Your task to perform on an android device: search for starred emails in the gmail app Image 0: 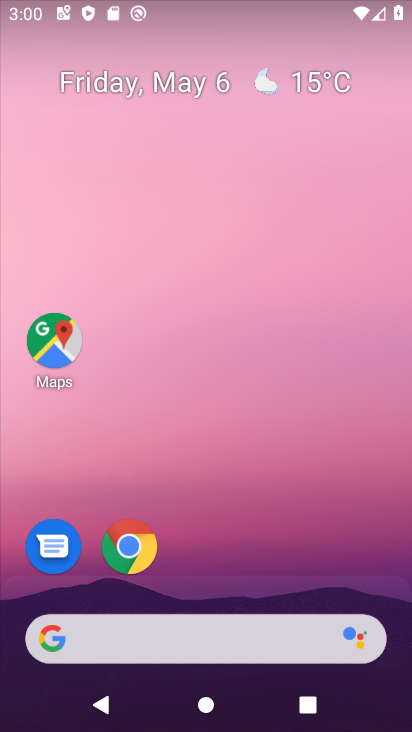
Step 0: drag from (183, 627) to (234, 190)
Your task to perform on an android device: search for starred emails in the gmail app Image 1: 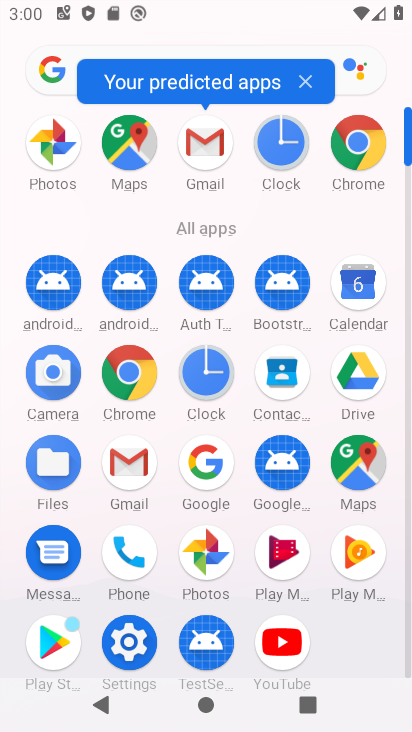
Step 1: click (210, 147)
Your task to perform on an android device: search for starred emails in the gmail app Image 2: 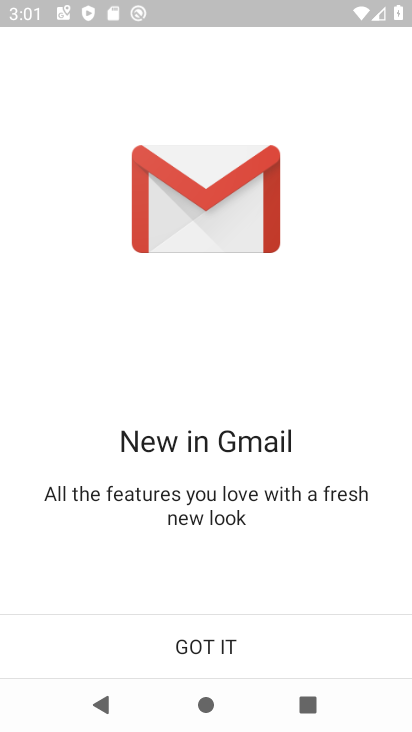
Step 2: click (205, 646)
Your task to perform on an android device: search for starred emails in the gmail app Image 3: 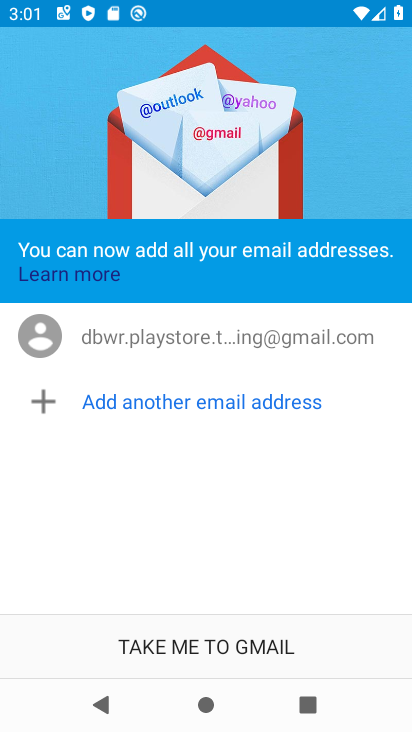
Step 3: click (206, 646)
Your task to perform on an android device: search for starred emails in the gmail app Image 4: 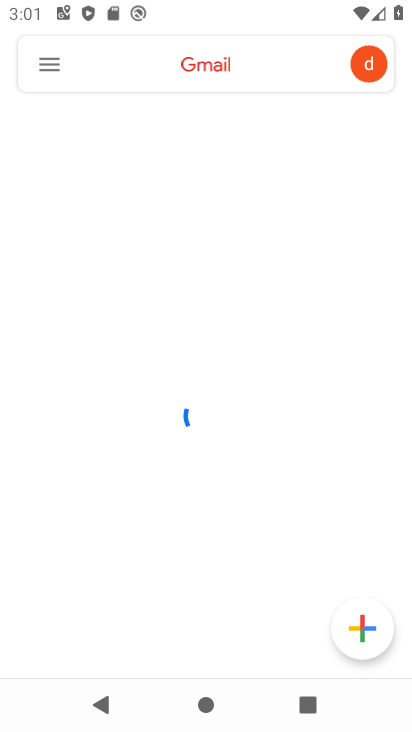
Step 4: click (47, 59)
Your task to perform on an android device: search for starred emails in the gmail app Image 5: 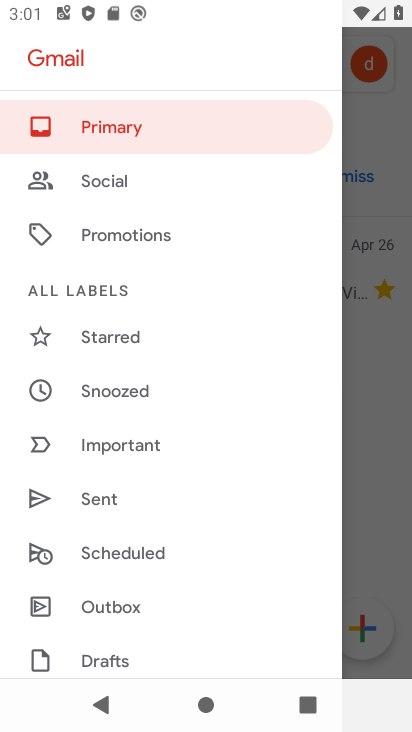
Step 5: click (114, 343)
Your task to perform on an android device: search for starred emails in the gmail app Image 6: 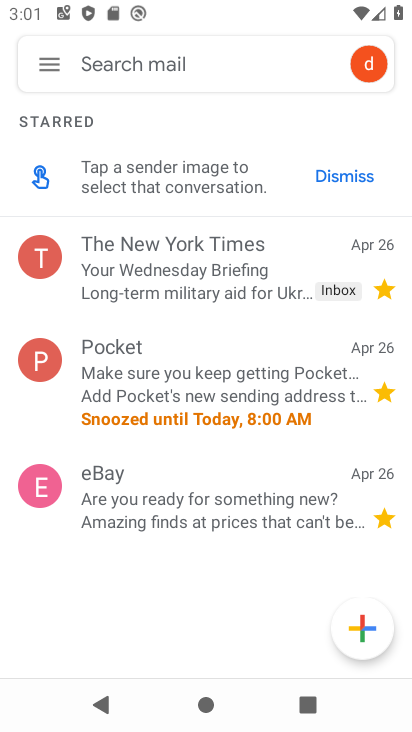
Step 6: task complete